Your task to perform on an android device: Go to accessibility settings Image 0: 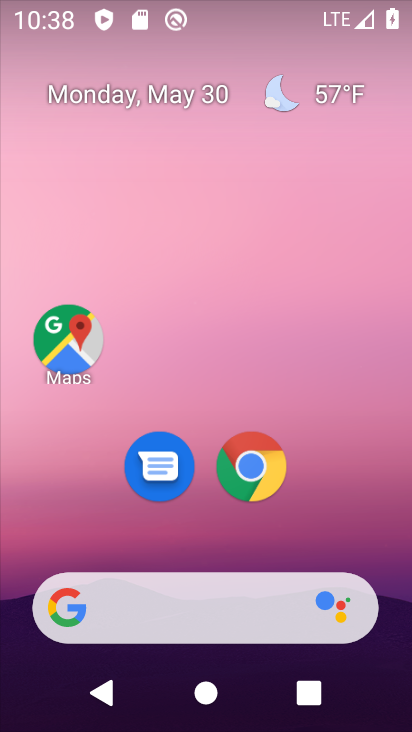
Step 0: drag from (346, 532) to (323, 106)
Your task to perform on an android device: Go to accessibility settings Image 1: 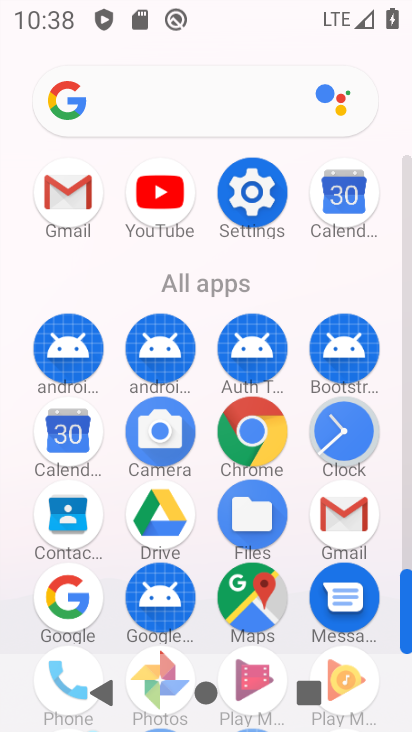
Step 1: click (256, 173)
Your task to perform on an android device: Go to accessibility settings Image 2: 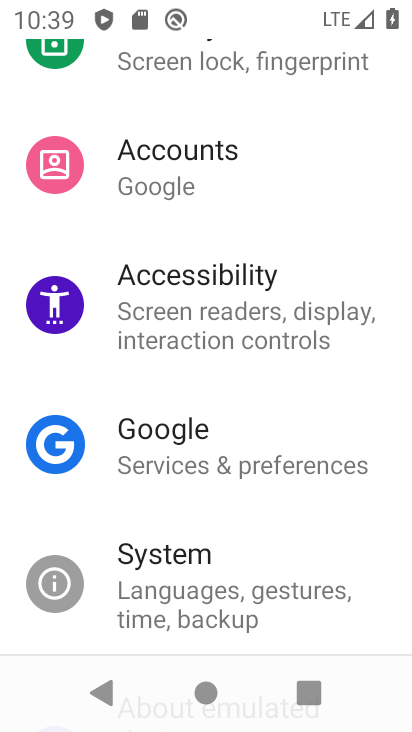
Step 2: click (202, 273)
Your task to perform on an android device: Go to accessibility settings Image 3: 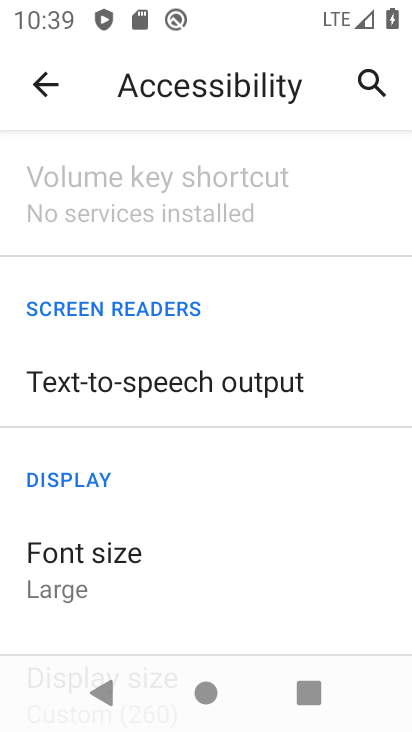
Step 3: task complete